Your task to perform on an android device: allow cookies in the chrome app Image 0: 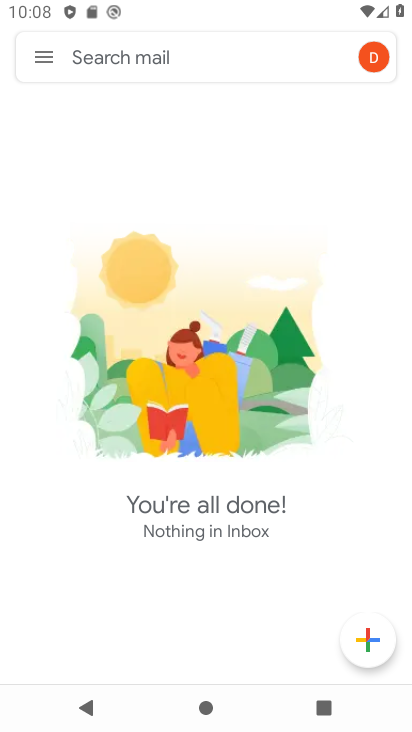
Step 0: press home button
Your task to perform on an android device: allow cookies in the chrome app Image 1: 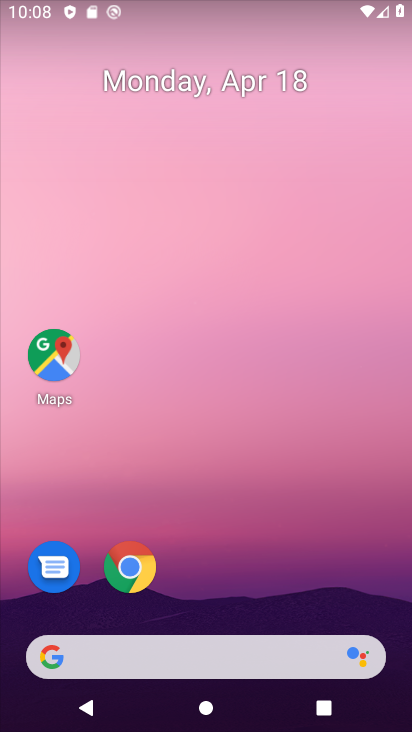
Step 1: click (129, 572)
Your task to perform on an android device: allow cookies in the chrome app Image 2: 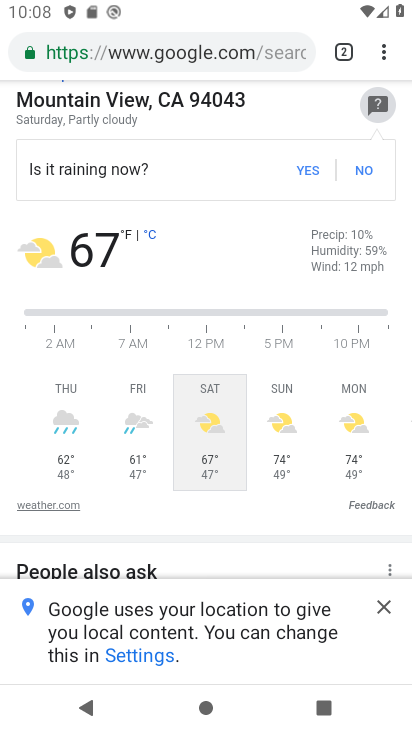
Step 2: click (380, 52)
Your task to perform on an android device: allow cookies in the chrome app Image 3: 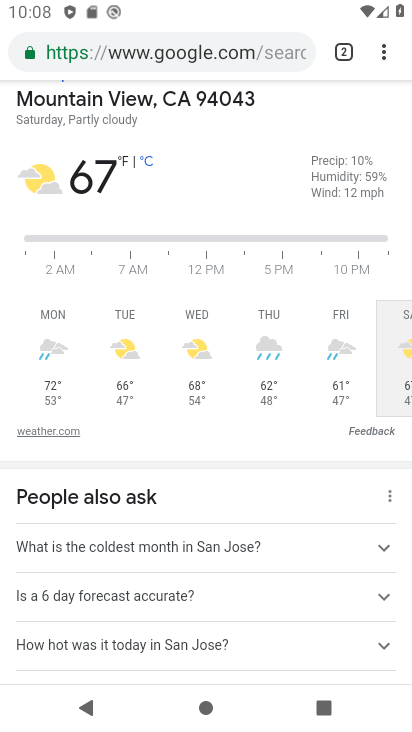
Step 3: click (380, 52)
Your task to perform on an android device: allow cookies in the chrome app Image 4: 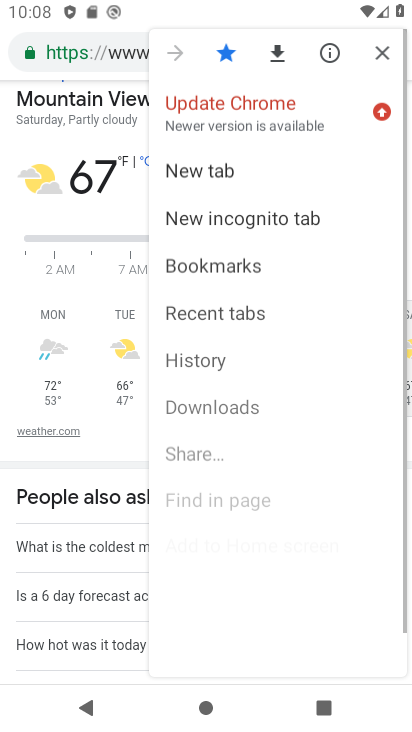
Step 4: click (382, 51)
Your task to perform on an android device: allow cookies in the chrome app Image 5: 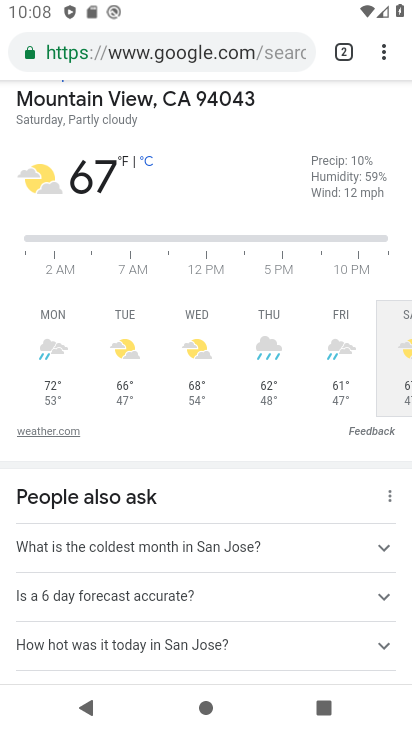
Step 5: click (391, 49)
Your task to perform on an android device: allow cookies in the chrome app Image 6: 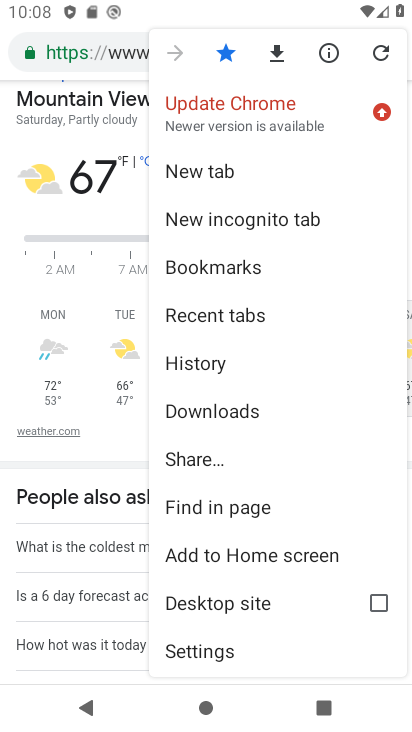
Step 6: click (198, 648)
Your task to perform on an android device: allow cookies in the chrome app Image 7: 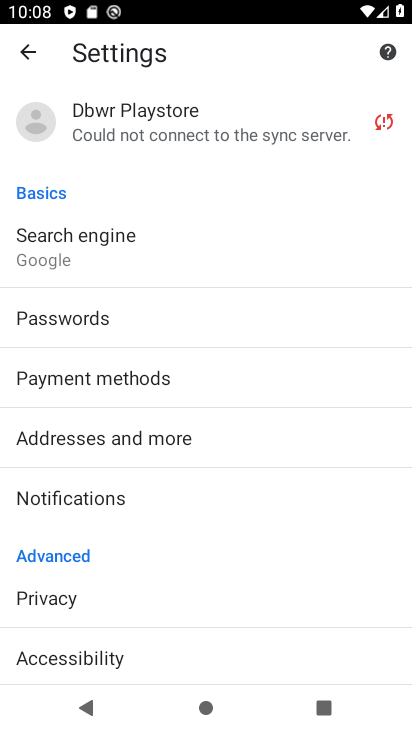
Step 7: drag from (93, 623) to (121, 413)
Your task to perform on an android device: allow cookies in the chrome app Image 8: 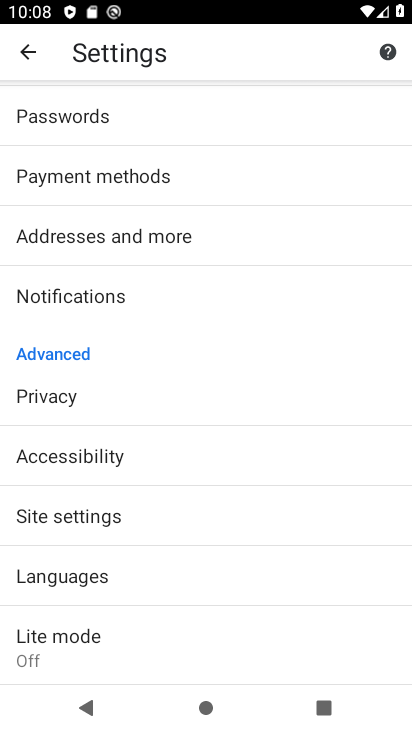
Step 8: click (68, 519)
Your task to perform on an android device: allow cookies in the chrome app Image 9: 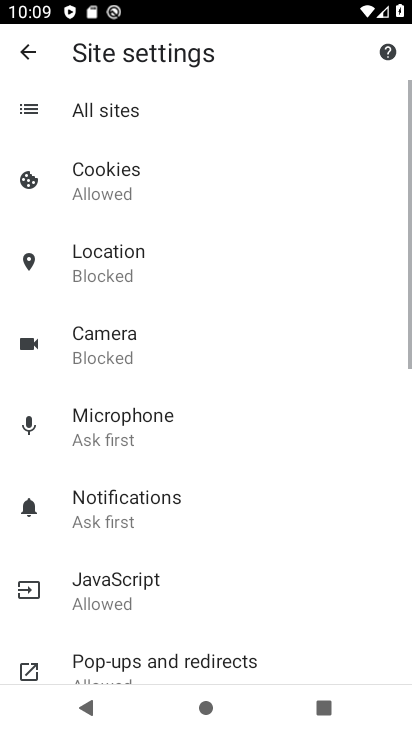
Step 9: click (113, 177)
Your task to perform on an android device: allow cookies in the chrome app Image 10: 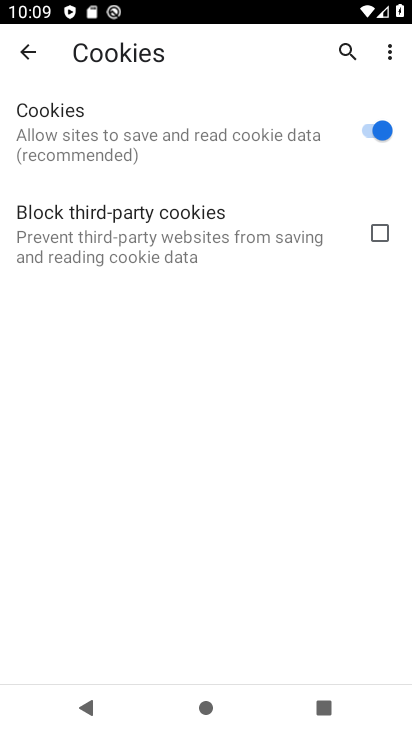
Step 10: task complete